Your task to perform on an android device: toggle translation in the chrome app Image 0: 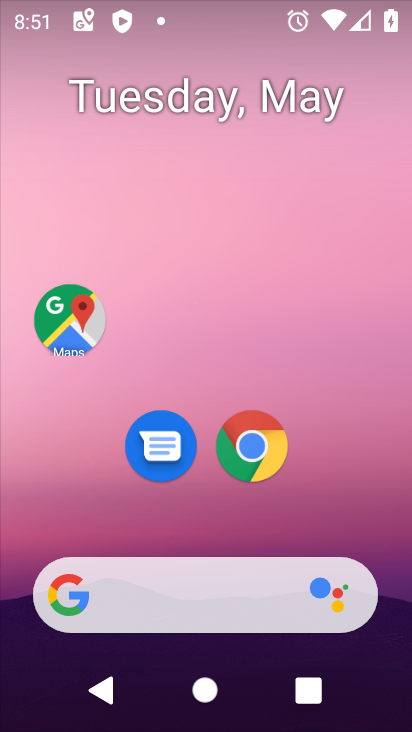
Step 0: click (263, 453)
Your task to perform on an android device: toggle translation in the chrome app Image 1: 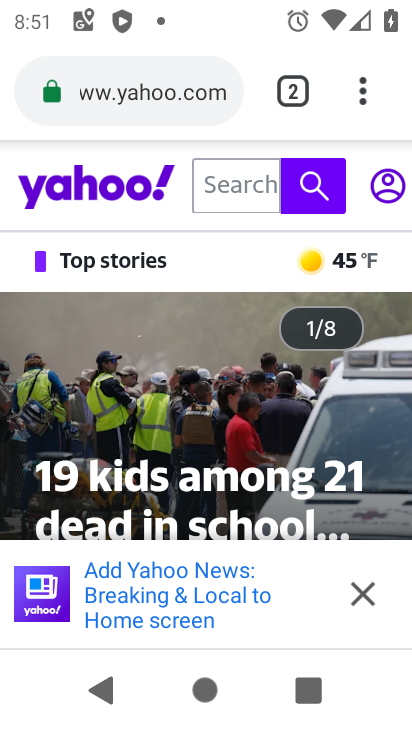
Step 1: click (368, 92)
Your task to perform on an android device: toggle translation in the chrome app Image 2: 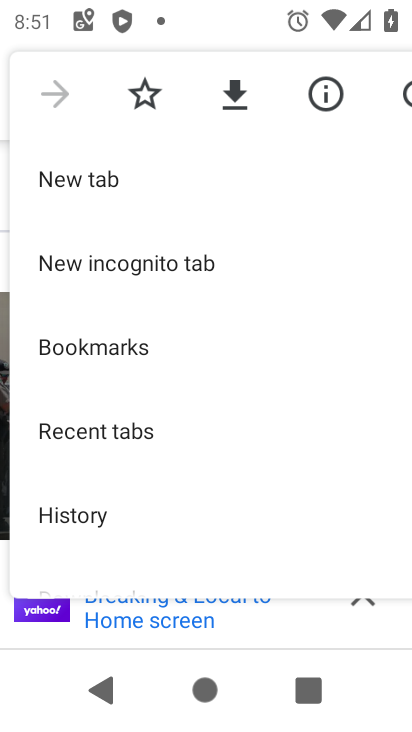
Step 2: drag from (194, 496) to (199, 216)
Your task to perform on an android device: toggle translation in the chrome app Image 3: 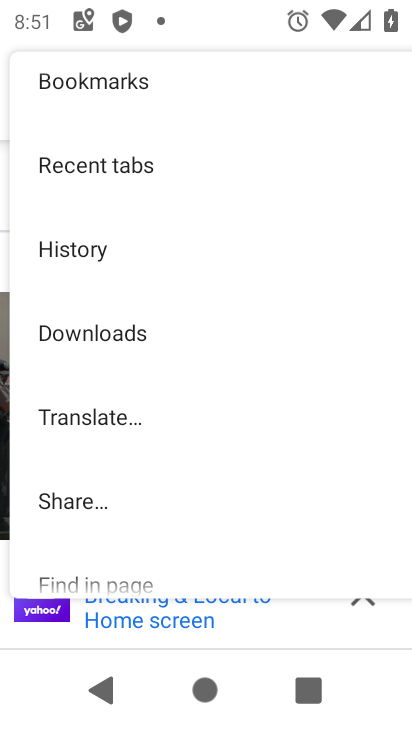
Step 3: drag from (177, 490) to (187, 166)
Your task to perform on an android device: toggle translation in the chrome app Image 4: 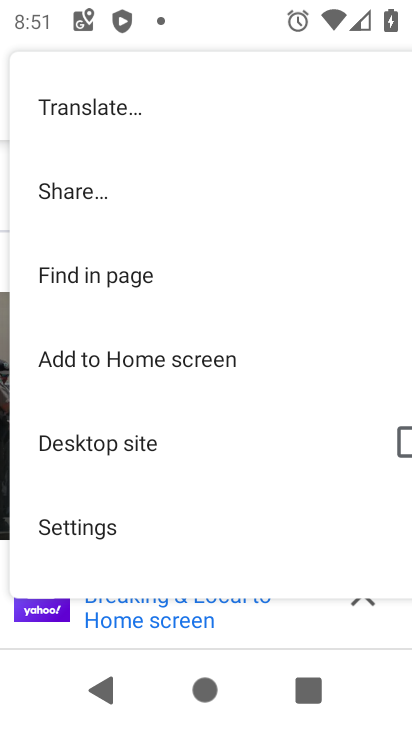
Step 4: click (96, 533)
Your task to perform on an android device: toggle translation in the chrome app Image 5: 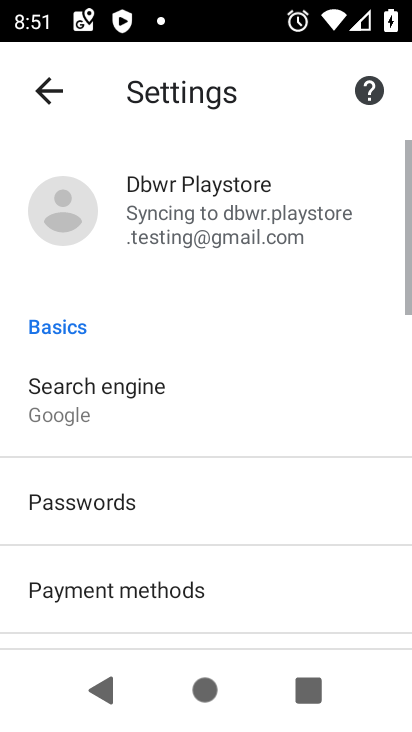
Step 5: drag from (161, 545) to (184, 106)
Your task to perform on an android device: toggle translation in the chrome app Image 6: 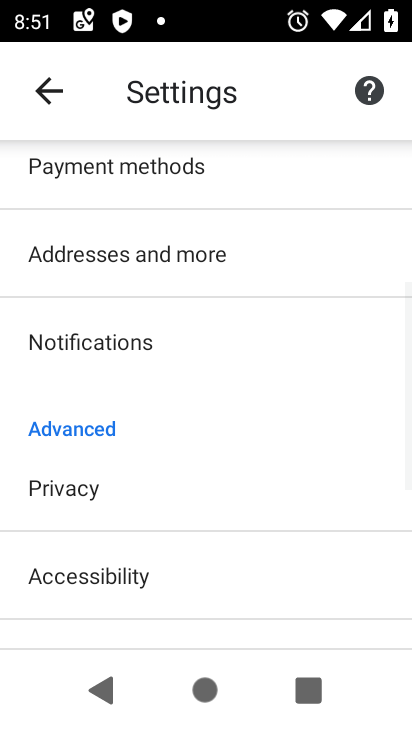
Step 6: drag from (178, 519) to (178, 111)
Your task to perform on an android device: toggle translation in the chrome app Image 7: 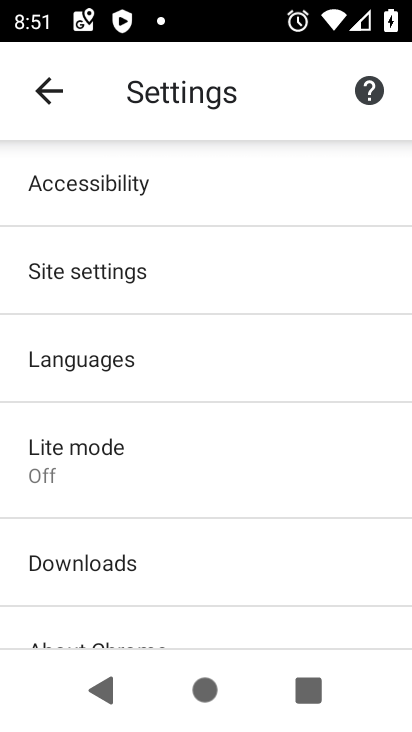
Step 7: click (77, 369)
Your task to perform on an android device: toggle translation in the chrome app Image 8: 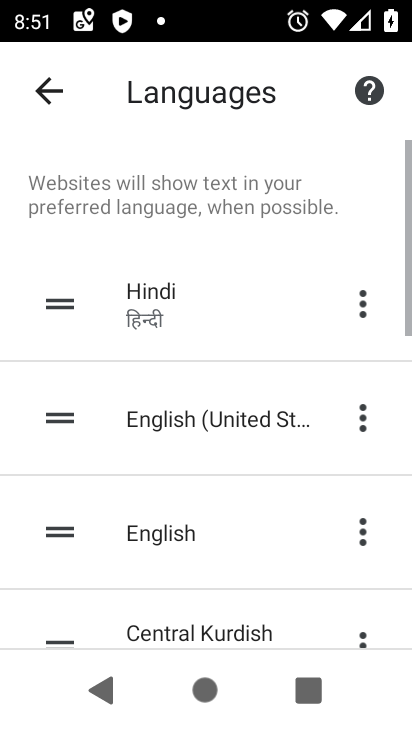
Step 8: drag from (221, 559) to (222, 125)
Your task to perform on an android device: toggle translation in the chrome app Image 9: 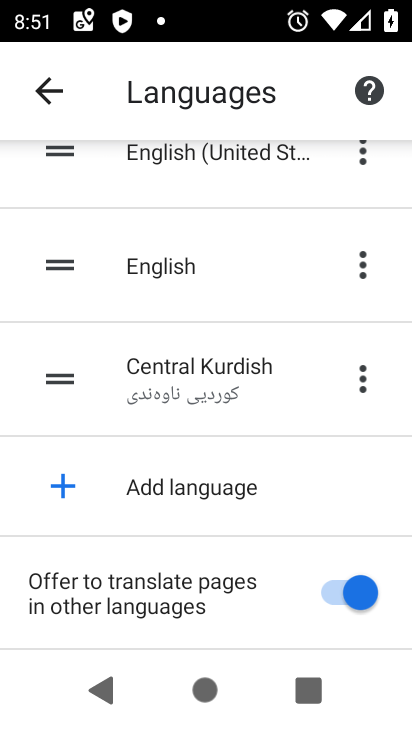
Step 9: click (368, 601)
Your task to perform on an android device: toggle translation in the chrome app Image 10: 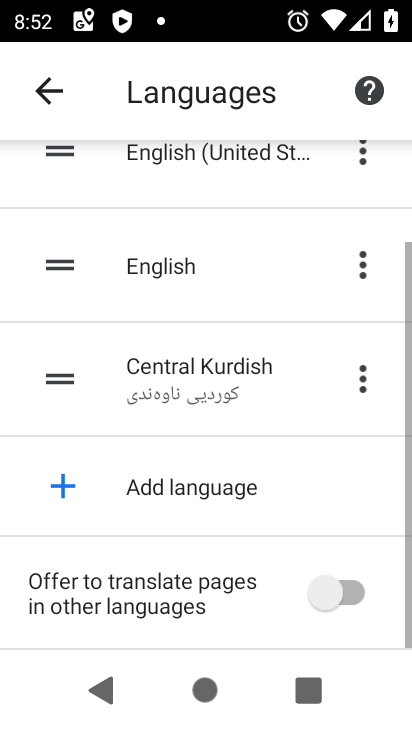
Step 10: task complete